Your task to perform on an android device: change alarm snooze length Image 0: 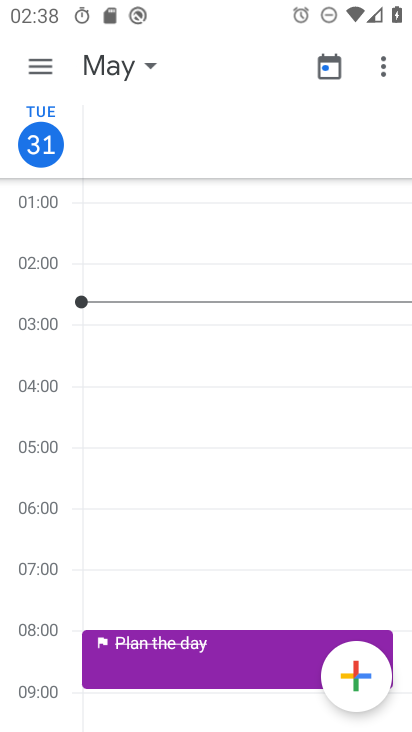
Step 0: press home button
Your task to perform on an android device: change alarm snooze length Image 1: 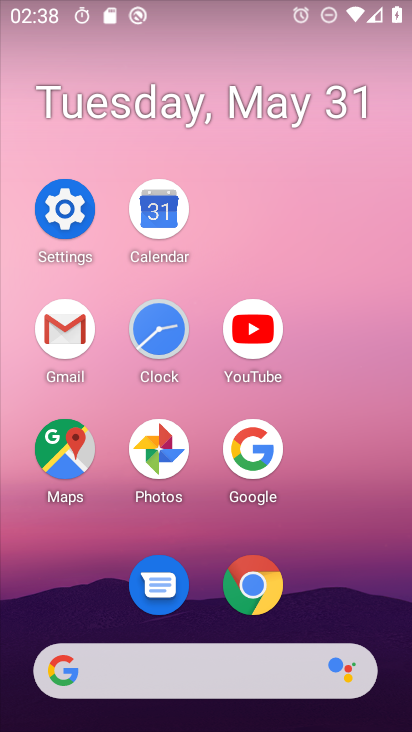
Step 1: click (163, 326)
Your task to perform on an android device: change alarm snooze length Image 2: 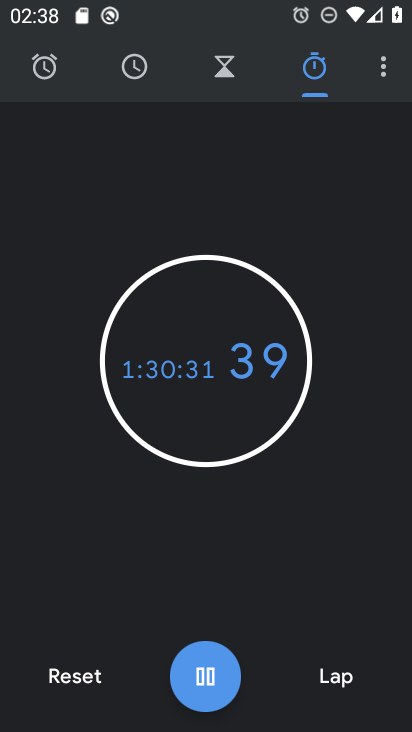
Step 2: click (393, 72)
Your task to perform on an android device: change alarm snooze length Image 3: 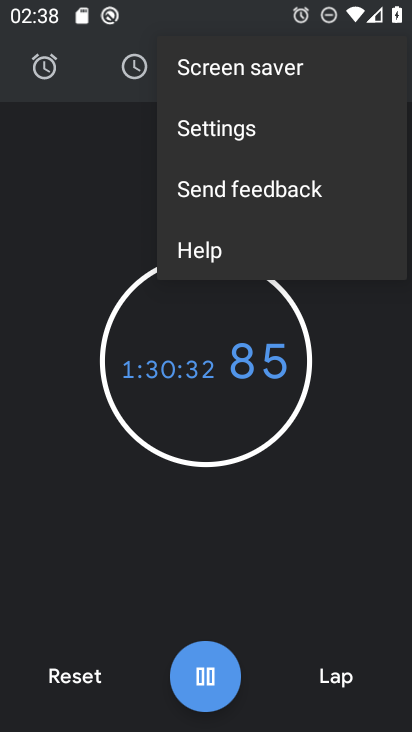
Step 3: click (268, 140)
Your task to perform on an android device: change alarm snooze length Image 4: 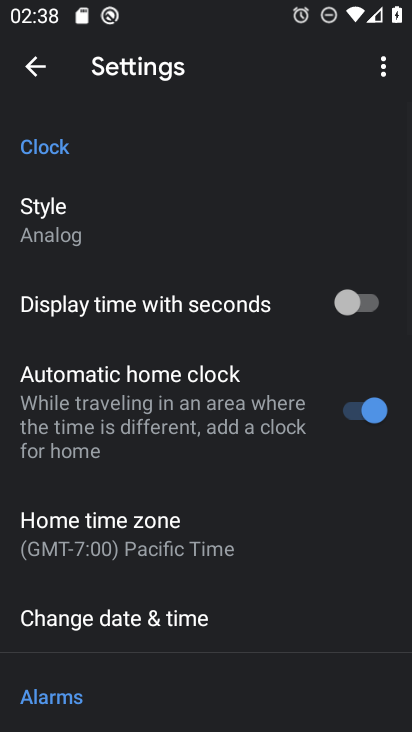
Step 4: drag from (176, 566) to (194, 166)
Your task to perform on an android device: change alarm snooze length Image 5: 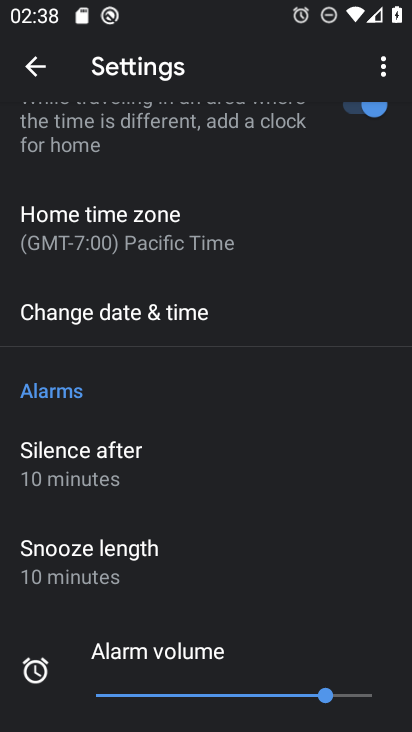
Step 5: click (155, 558)
Your task to perform on an android device: change alarm snooze length Image 6: 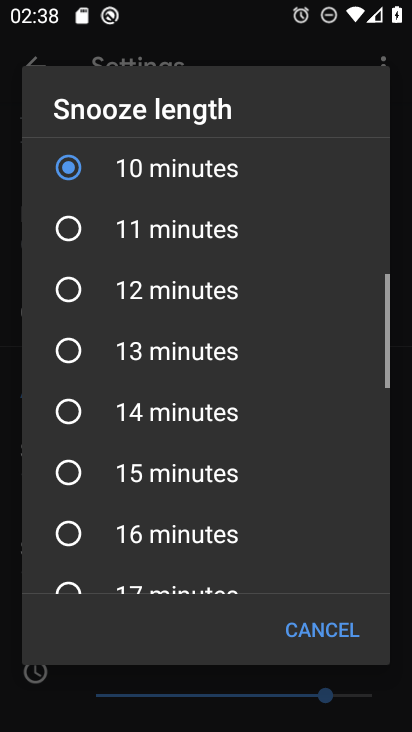
Step 6: click (149, 296)
Your task to perform on an android device: change alarm snooze length Image 7: 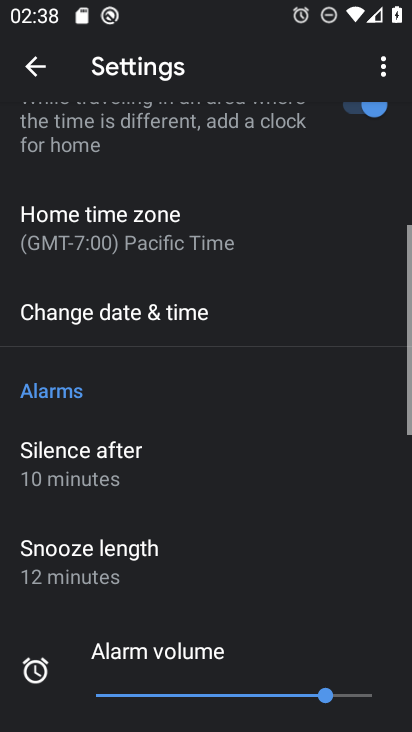
Step 7: task complete